Your task to perform on an android device: Show me the alarms in the clock app Image 0: 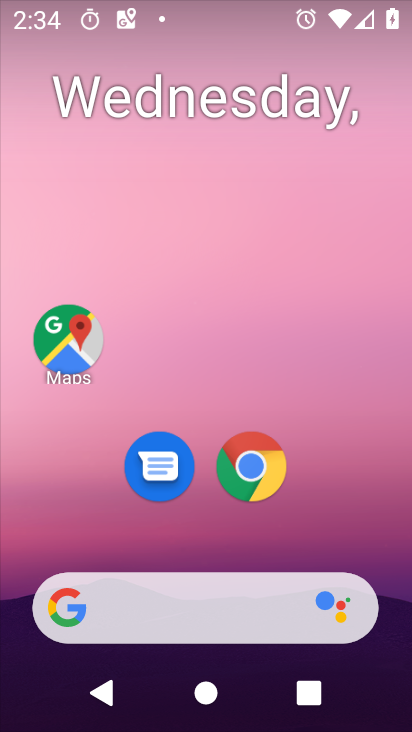
Step 0: drag from (234, 527) to (201, 93)
Your task to perform on an android device: Show me the alarms in the clock app Image 1: 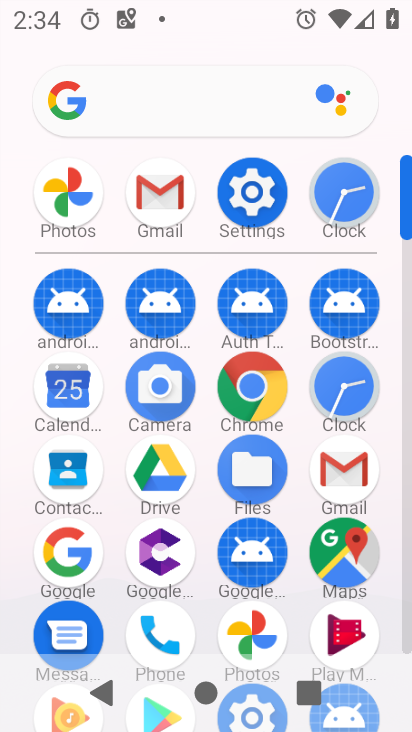
Step 1: click (341, 388)
Your task to perform on an android device: Show me the alarms in the clock app Image 2: 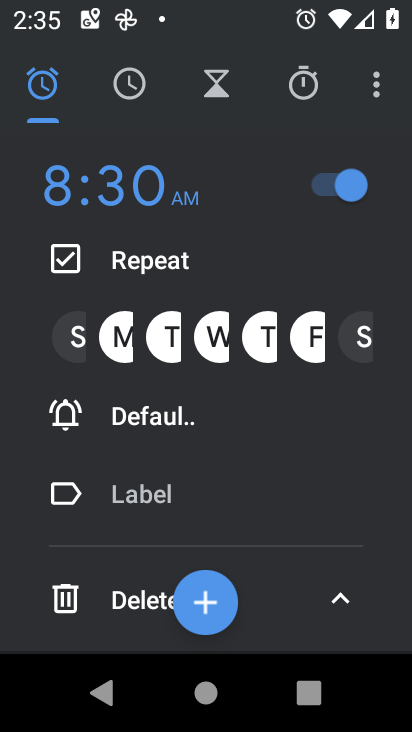
Step 2: click (51, 86)
Your task to perform on an android device: Show me the alarms in the clock app Image 3: 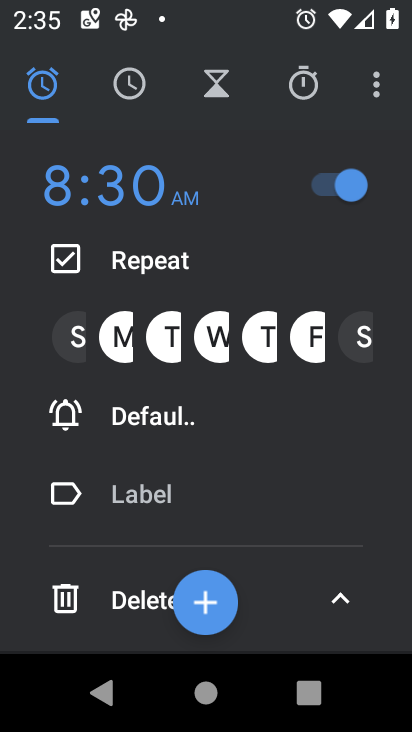
Step 3: click (337, 598)
Your task to perform on an android device: Show me the alarms in the clock app Image 4: 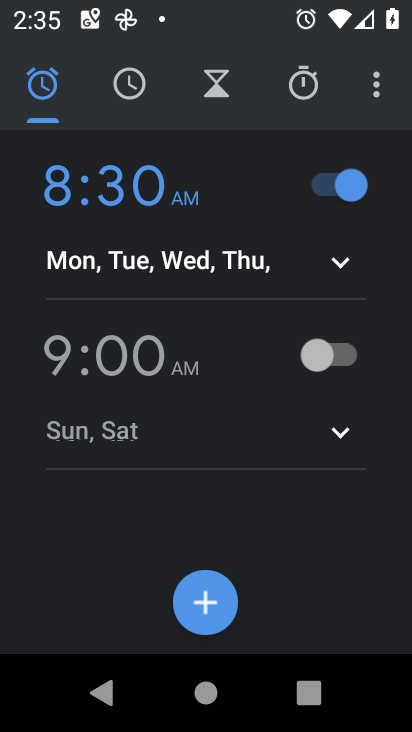
Step 4: task complete